Your task to perform on an android device: turn off notifications settings in the gmail app Image 0: 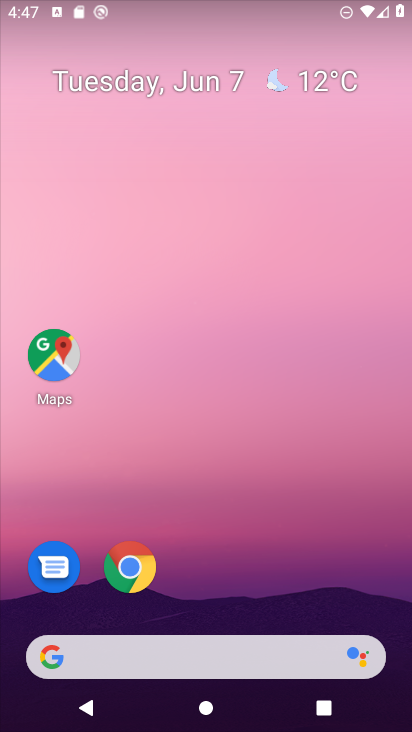
Step 0: drag from (242, 648) to (257, 32)
Your task to perform on an android device: turn off notifications settings in the gmail app Image 1: 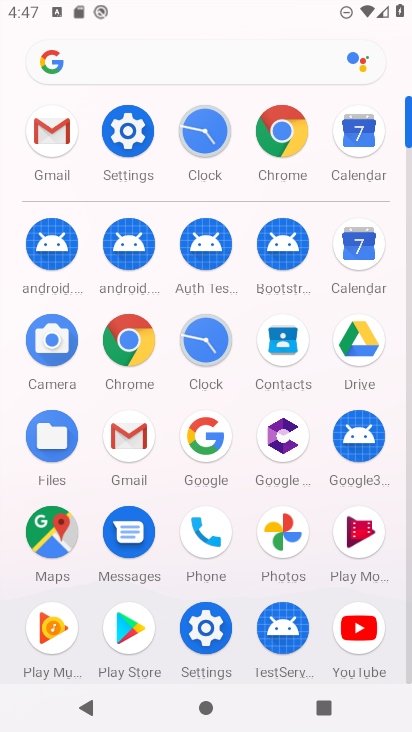
Step 1: click (122, 426)
Your task to perform on an android device: turn off notifications settings in the gmail app Image 2: 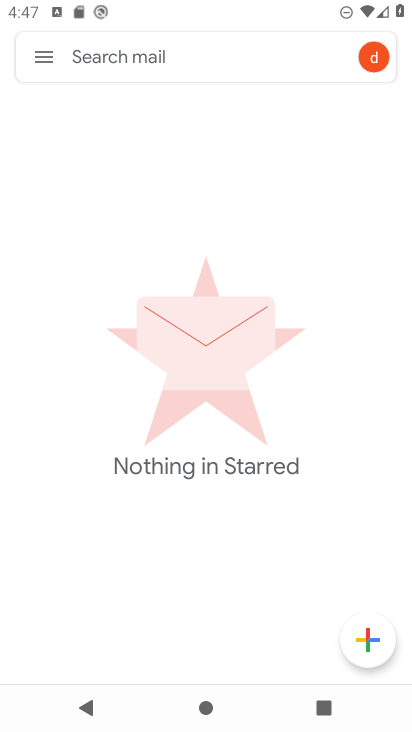
Step 2: click (39, 55)
Your task to perform on an android device: turn off notifications settings in the gmail app Image 3: 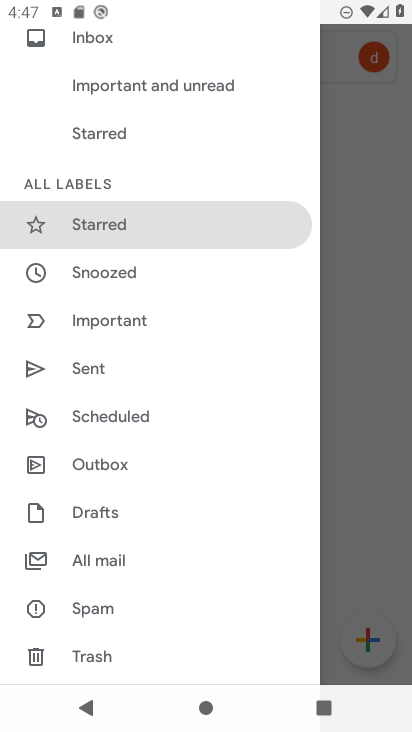
Step 3: drag from (165, 655) to (194, 159)
Your task to perform on an android device: turn off notifications settings in the gmail app Image 4: 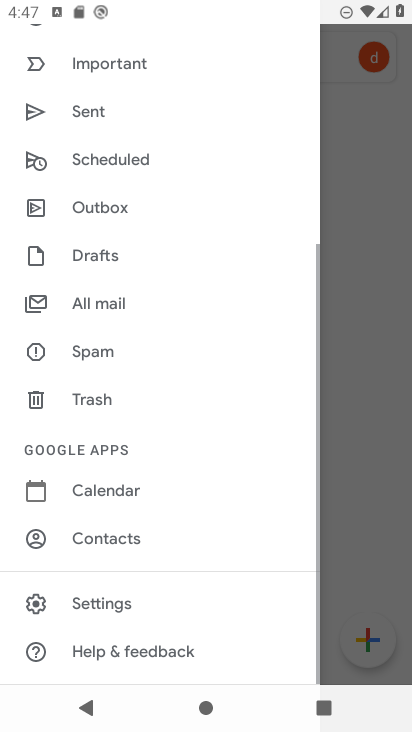
Step 4: click (145, 610)
Your task to perform on an android device: turn off notifications settings in the gmail app Image 5: 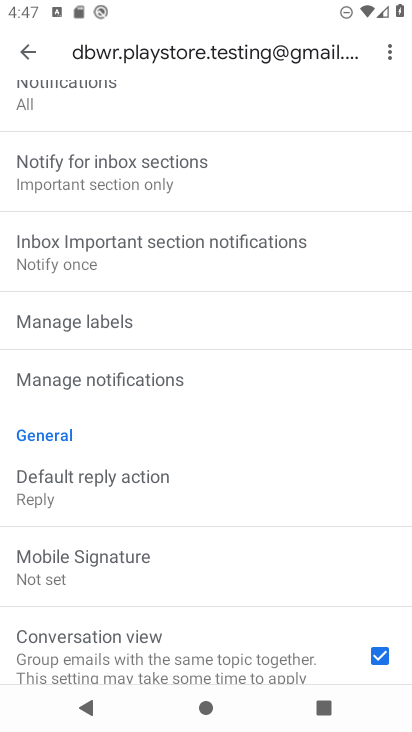
Step 5: click (110, 381)
Your task to perform on an android device: turn off notifications settings in the gmail app Image 6: 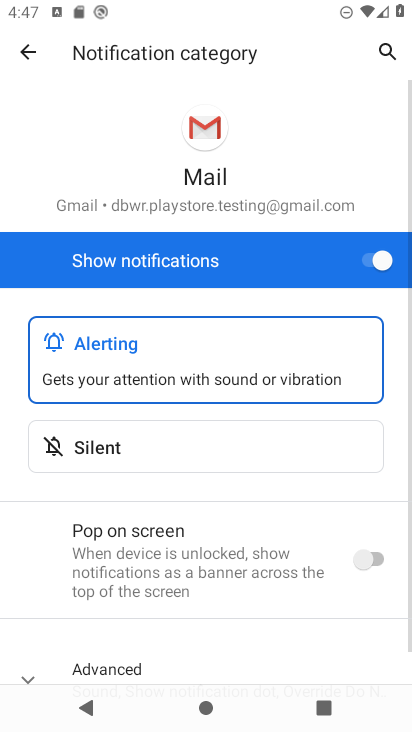
Step 6: click (386, 256)
Your task to perform on an android device: turn off notifications settings in the gmail app Image 7: 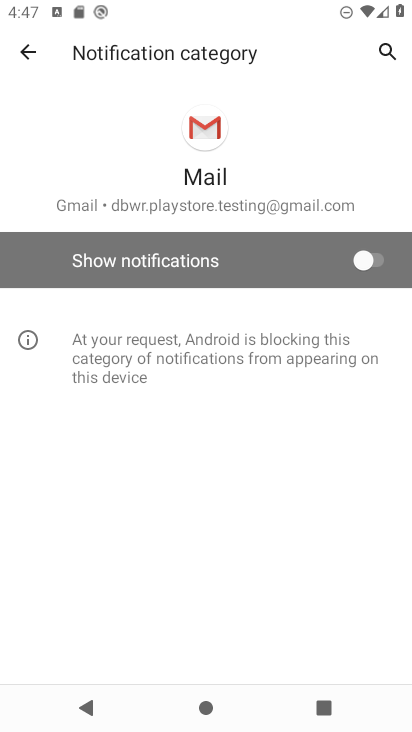
Step 7: task complete